Your task to perform on an android device: open sync settings in chrome Image 0: 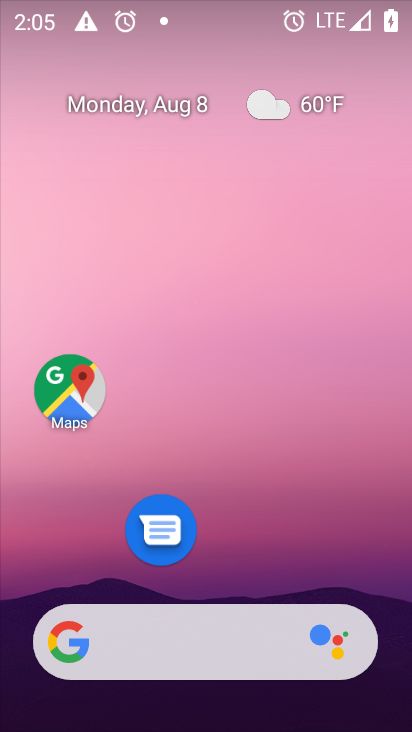
Step 0: drag from (201, 339) to (220, 54)
Your task to perform on an android device: open sync settings in chrome Image 1: 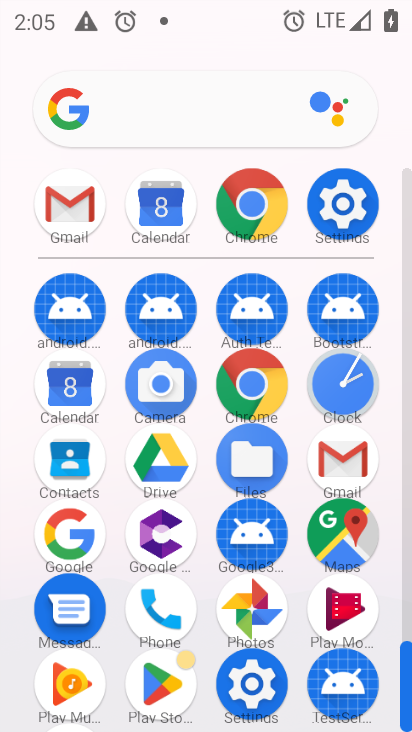
Step 1: click (251, 377)
Your task to perform on an android device: open sync settings in chrome Image 2: 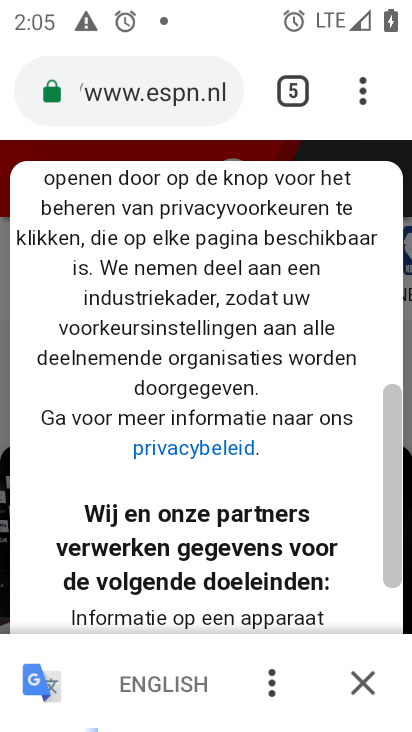
Step 2: drag from (361, 101) to (177, 551)
Your task to perform on an android device: open sync settings in chrome Image 3: 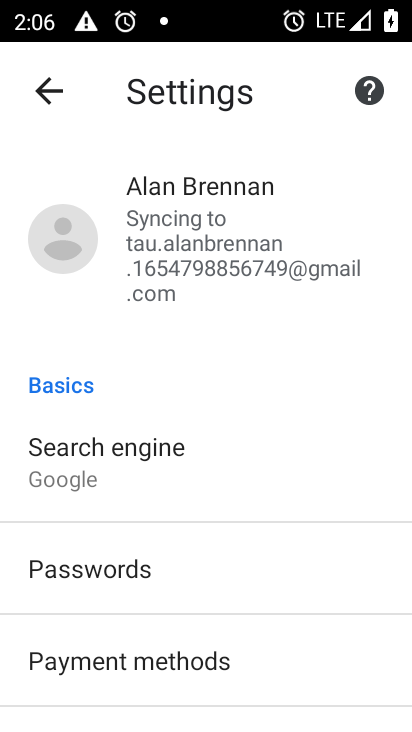
Step 3: drag from (156, 659) to (134, 288)
Your task to perform on an android device: open sync settings in chrome Image 4: 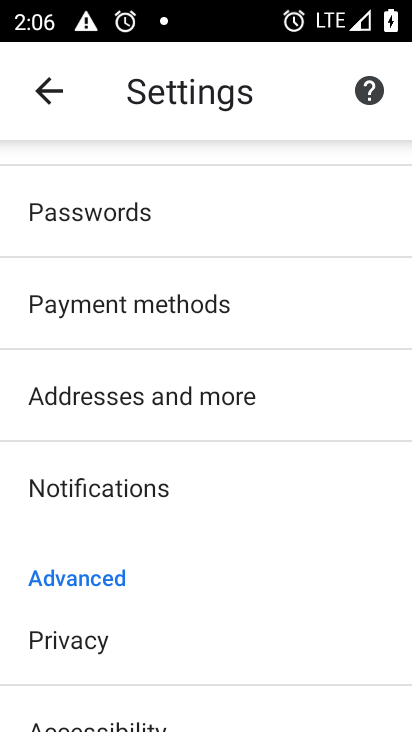
Step 4: drag from (125, 518) to (125, 295)
Your task to perform on an android device: open sync settings in chrome Image 5: 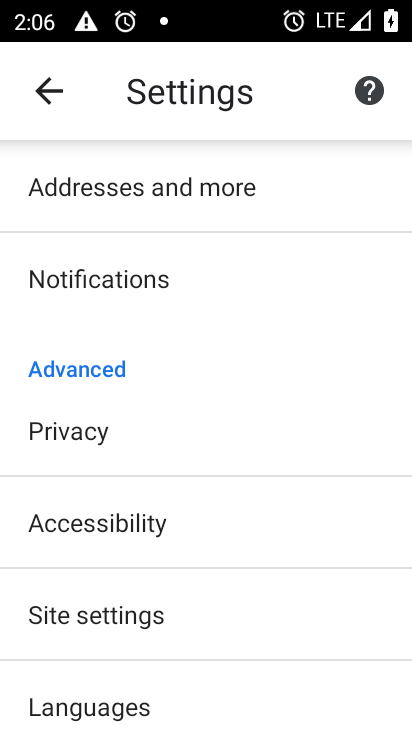
Step 5: click (94, 617)
Your task to perform on an android device: open sync settings in chrome Image 6: 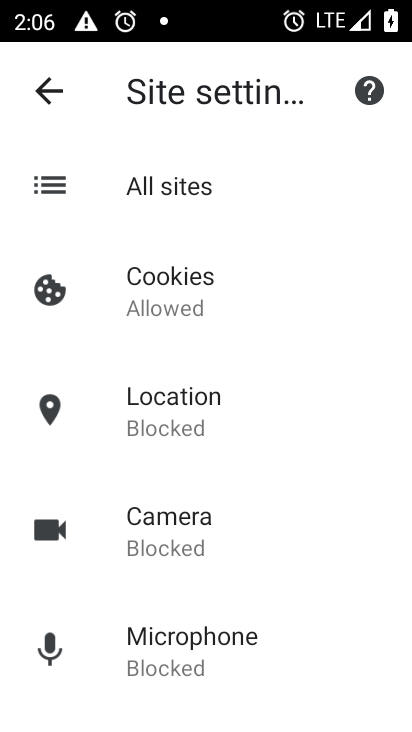
Step 6: drag from (168, 589) to (163, 242)
Your task to perform on an android device: open sync settings in chrome Image 7: 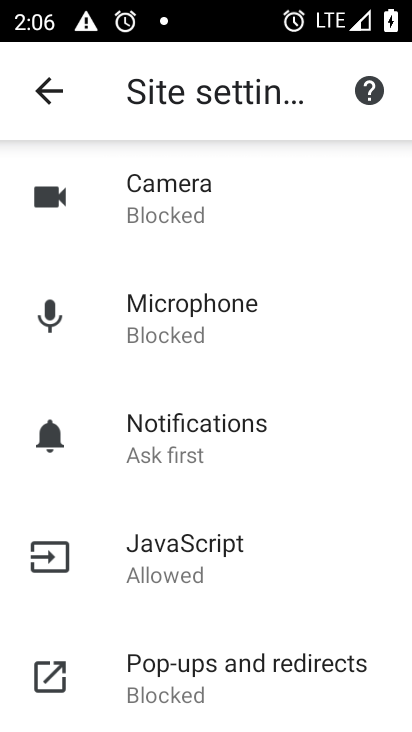
Step 7: drag from (199, 596) to (177, 284)
Your task to perform on an android device: open sync settings in chrome Image 8: 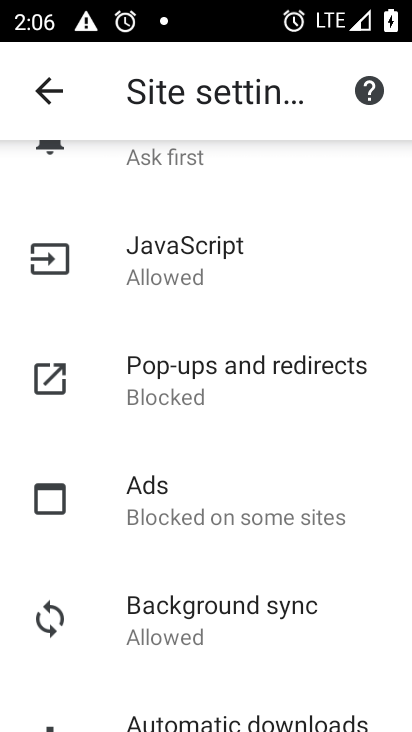
Step 8: click (168, 613)
Your task to perform on an android device: open sync settings in chrome Image 9: 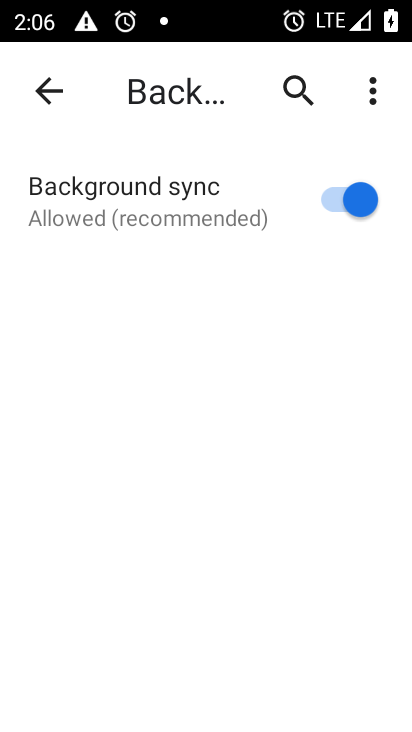
Step 9: task complete